Your task to perform on an android device: install app "Venmo" Image 0: 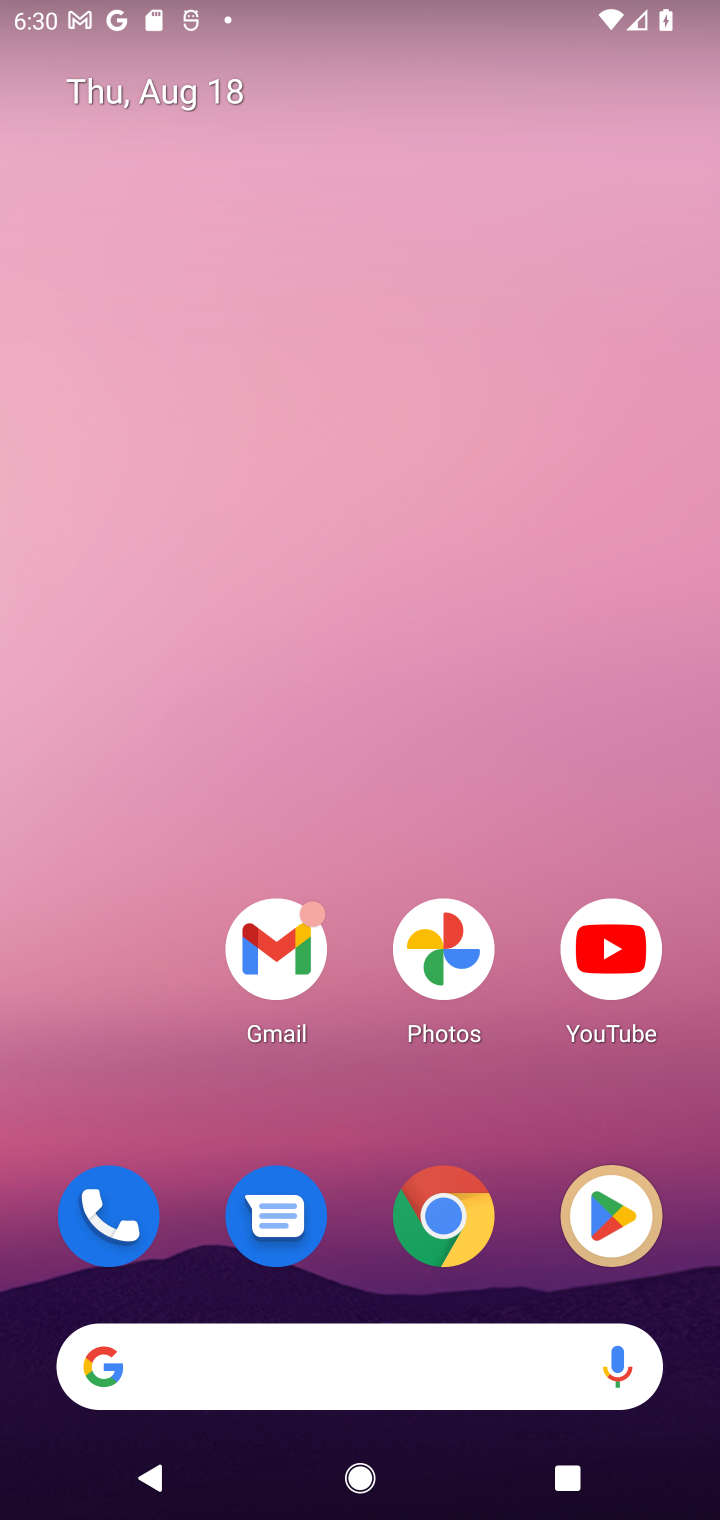
Step 0: click (611, 1213)
Your task to perform on an android device: install app "Venmo" Image 1: 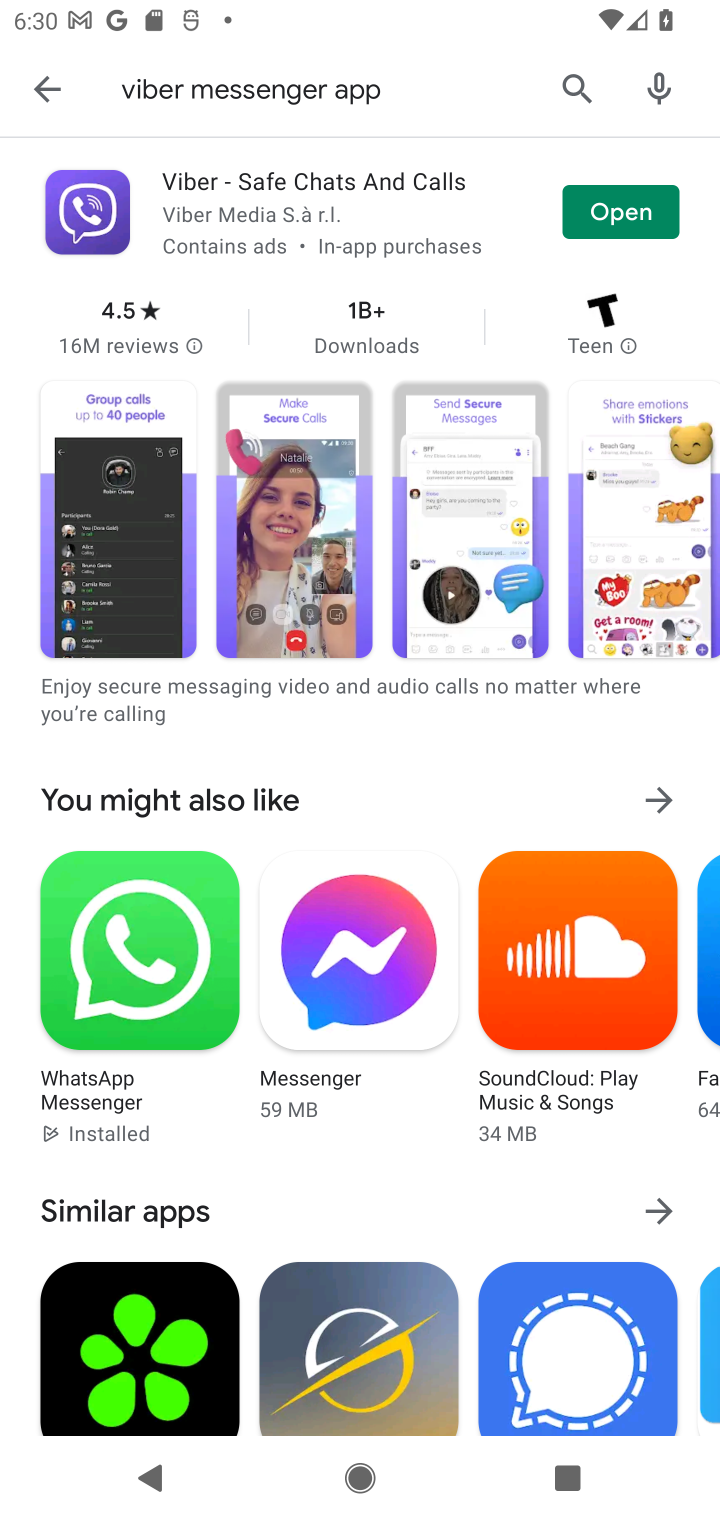
Step 1: click (581, 86)
Your task to perform on an android device: install app "Venmo" Image 2: 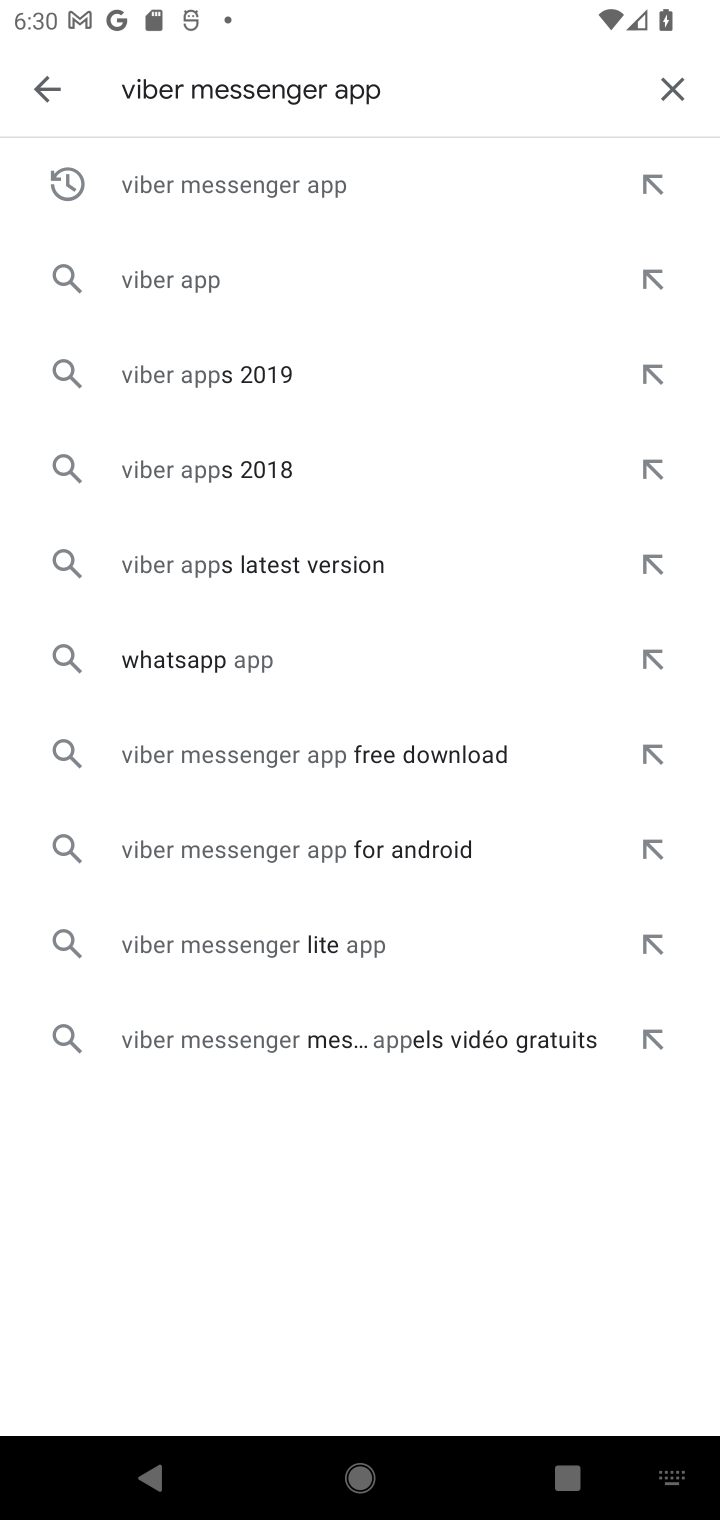
Step 2: click (670, 74)
Your task to perform on an android device: install app "Venmo" Image 3: 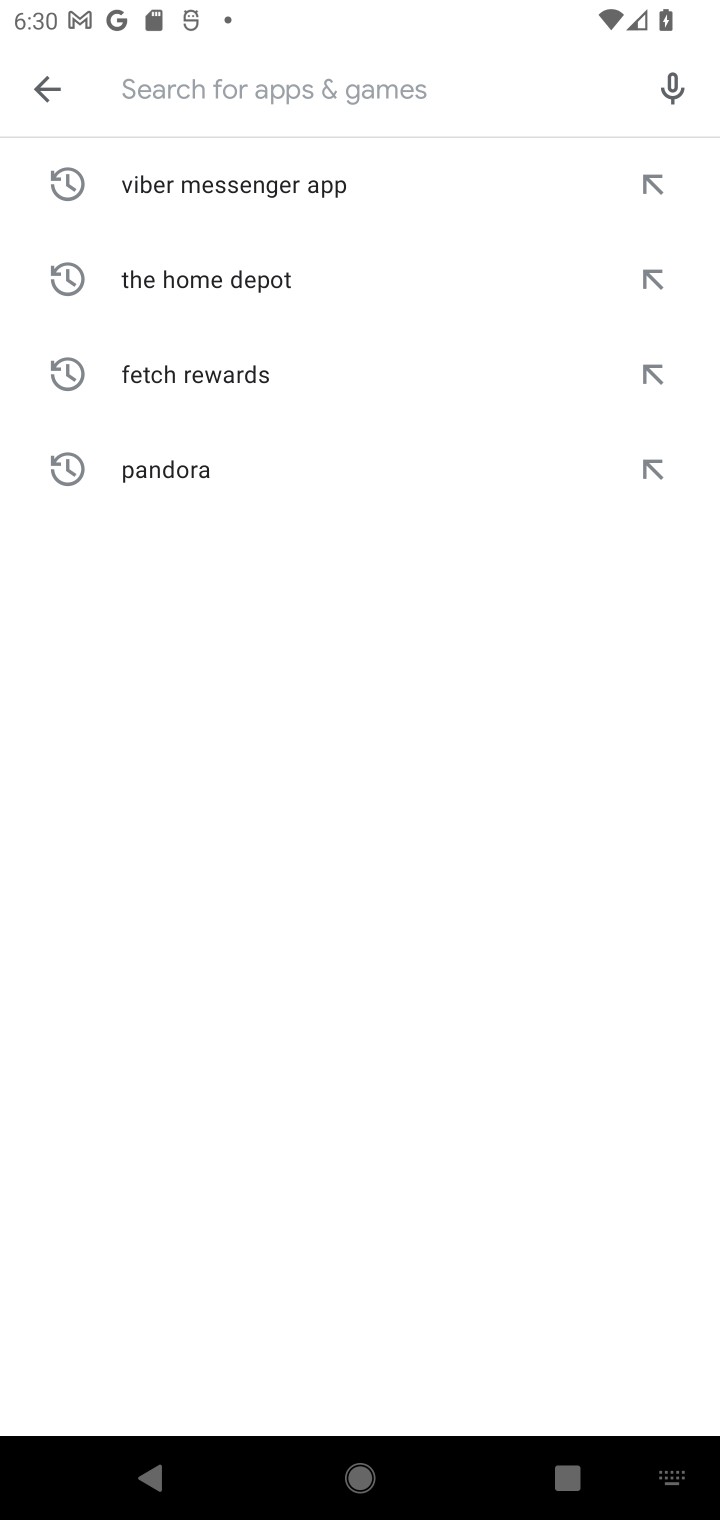
Step 3: type "venmo"
Your task to perform on an android device: install app "Venmo" Image 4: 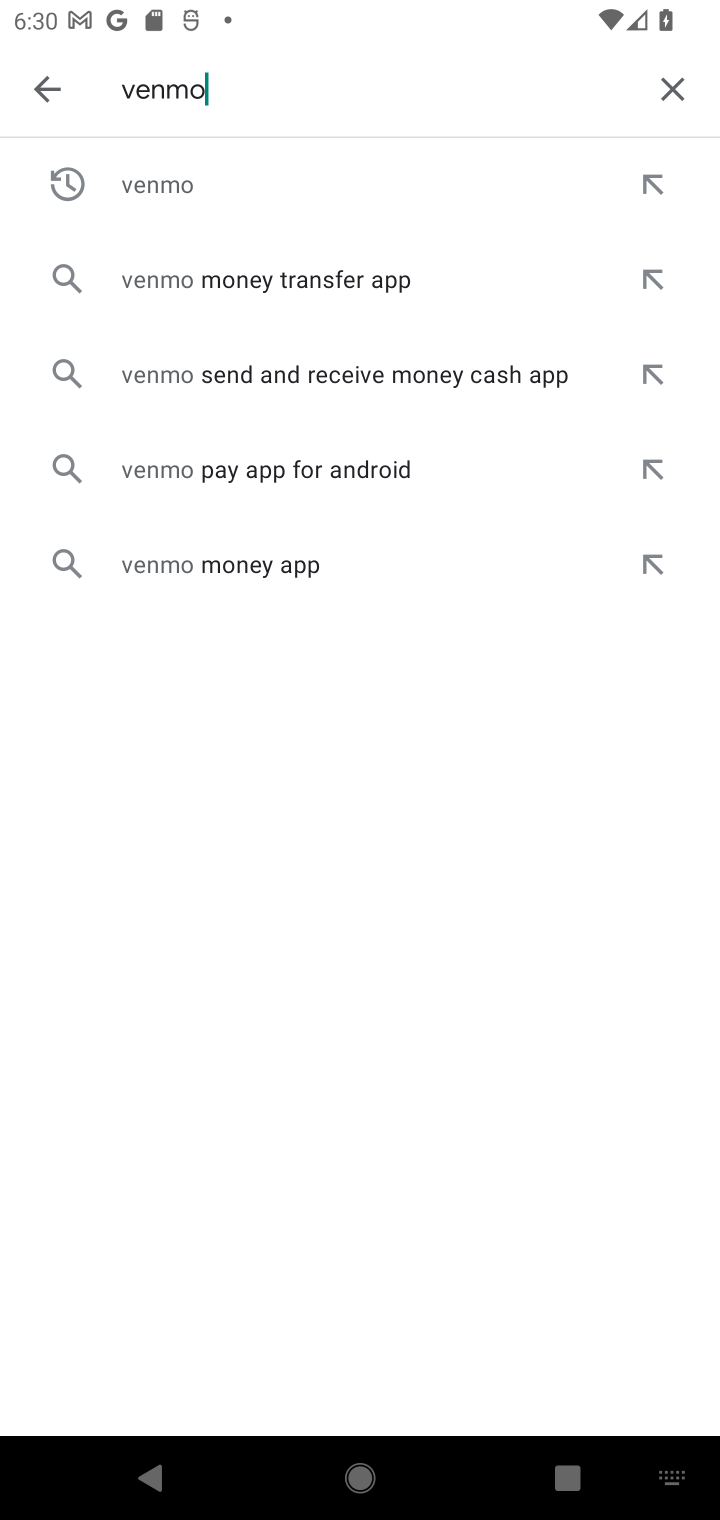
Step 4: click (152, 187)
Your task to perform on an android device: install app "Venmo" Image 5: 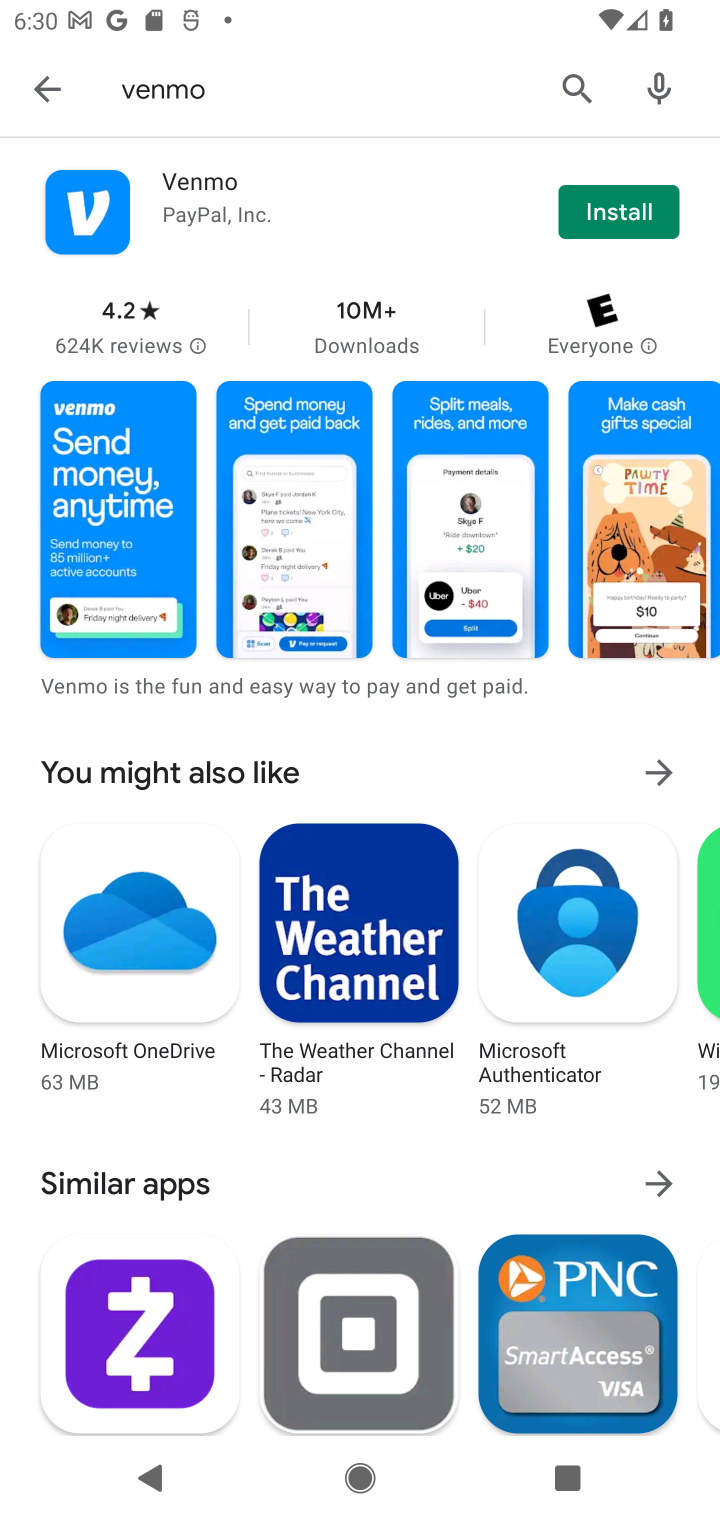
Step 5: click (620, 205)
Your task to perform on an android device: install app "Venmo" Image 6: 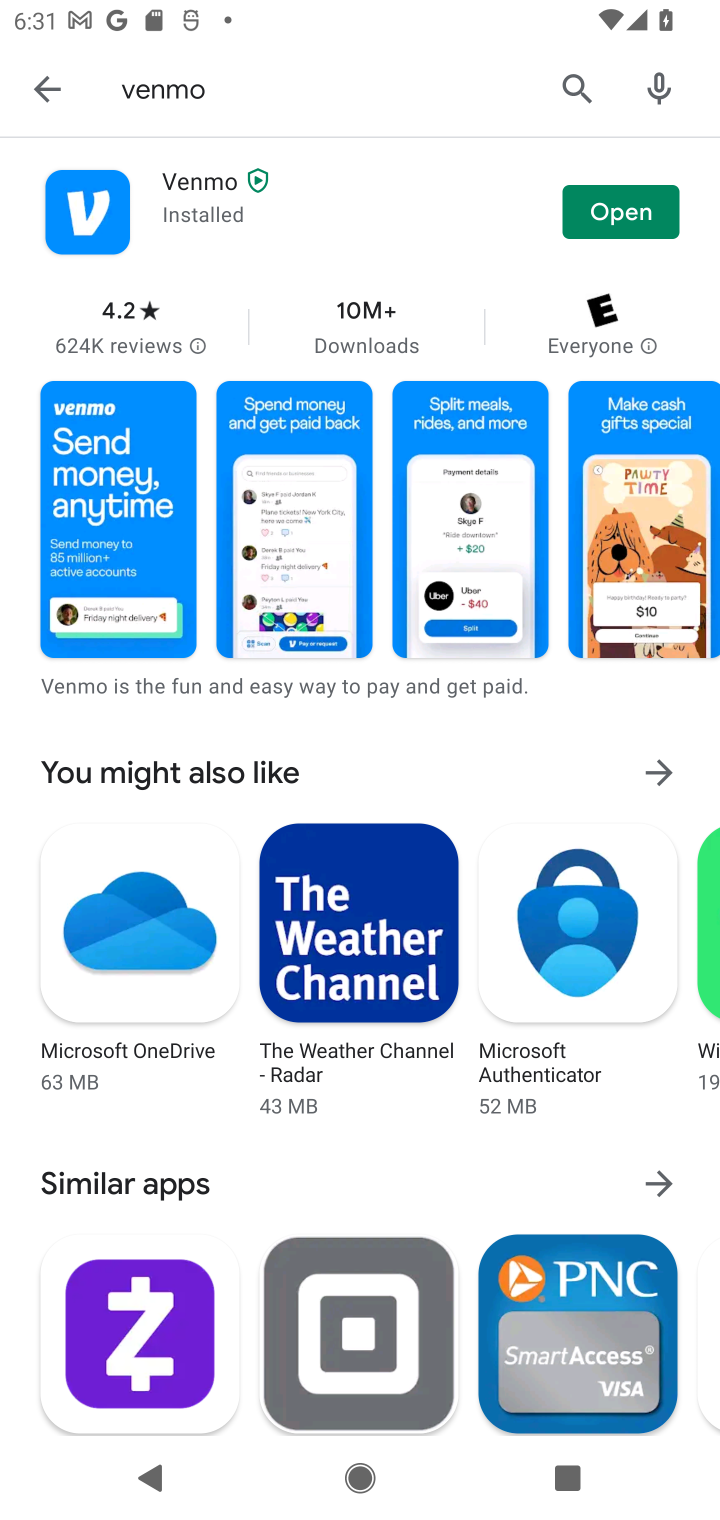
Step 6: click (611, 212)
Your task to perform on an android device: install app "Venmo" Image 7: 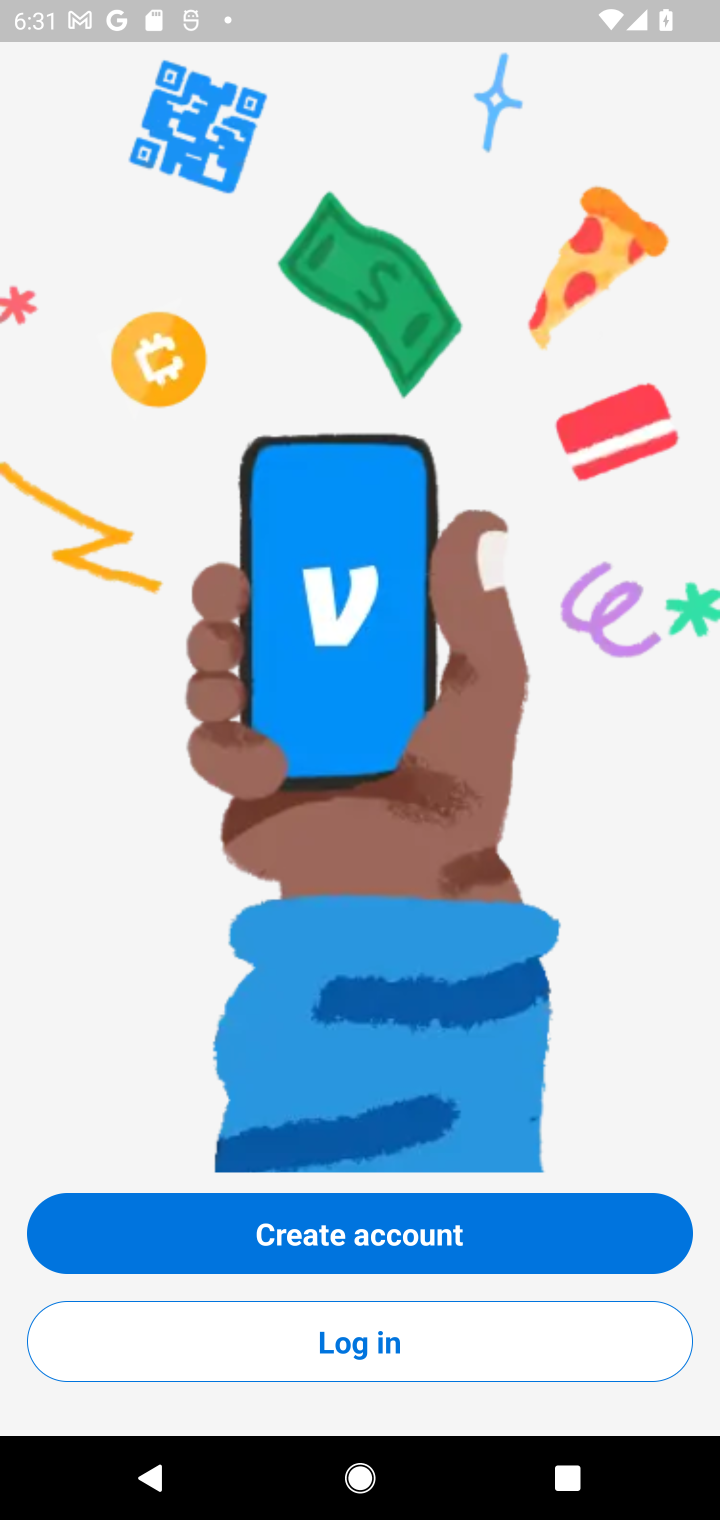
Step 7: task complete